Your task to perform on an android device: Open wifi settings Image 0: 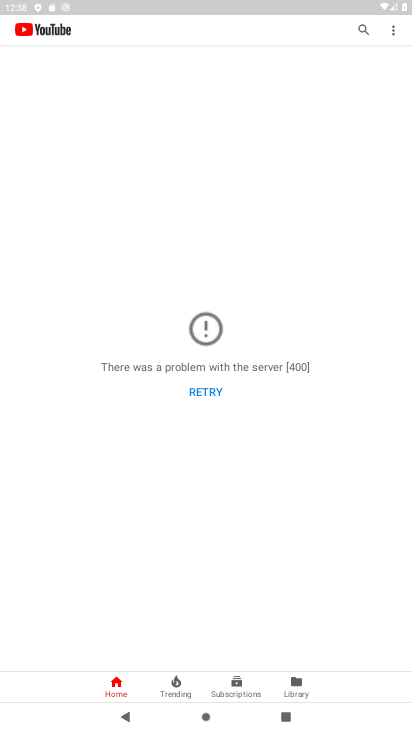
Step 0: press home button
Your task to perform on an android device: Open wifi settings Image 1: 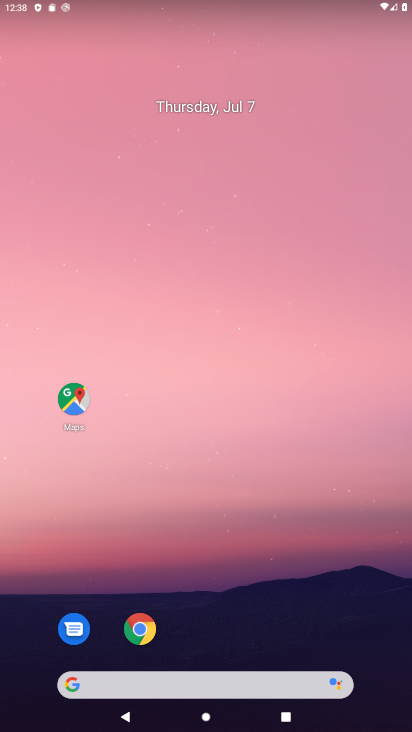
Step 1: drag from (251, 617) to (275, 93)
Your task to perform on an android device: Open wifi settings Image 2: 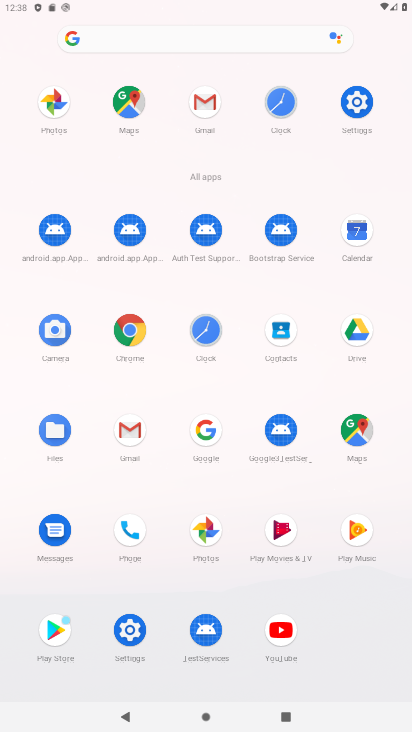
Step 2: click (355, 97)
Your task to perform on an android device: Open wifi settings Image 3: 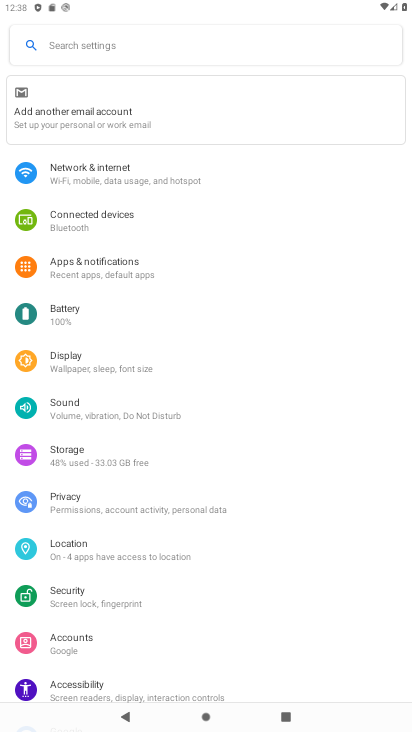
Step 3: click (139, 176)
Your task to perform on an android device: Open wifi settings Image 4: 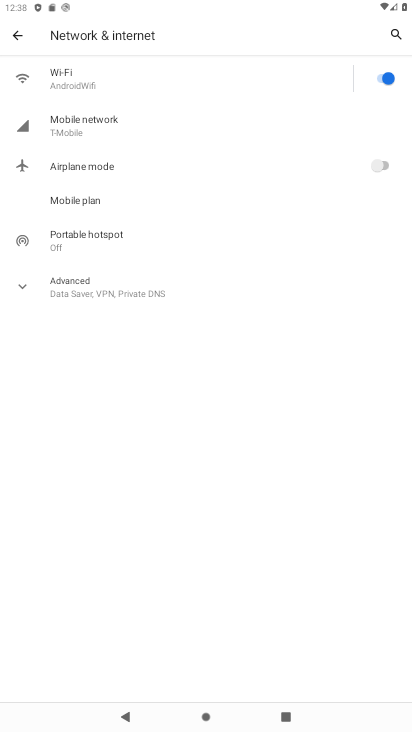
Step 4: click (152, 79)
Your task to perform on an android device: Open wifi settings Image 5: 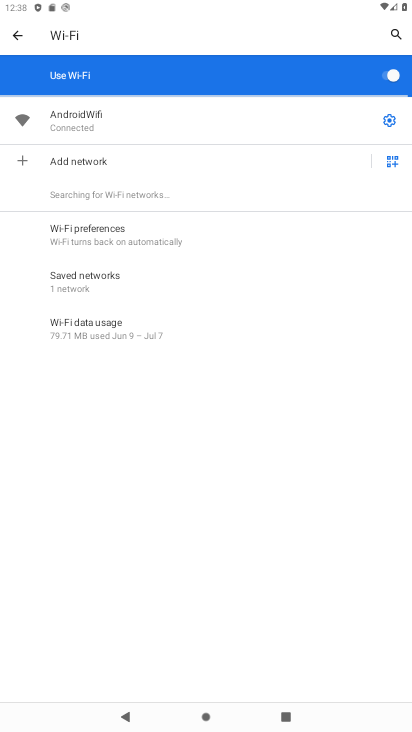
Step 5: click (383, 120)
Your task to perform on an android device: Open wifi settings Image 6: 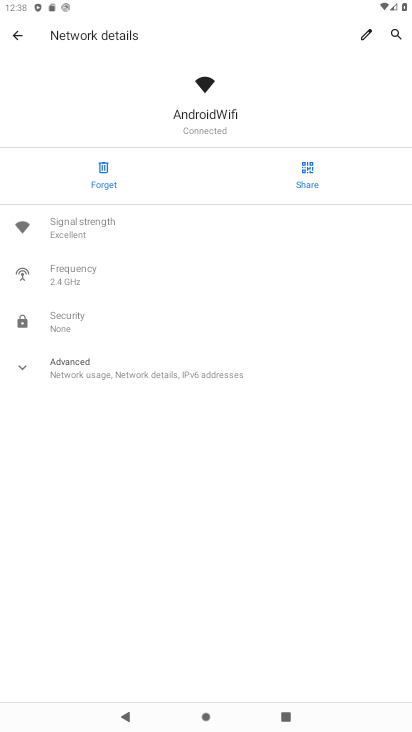
Step 6: task complete